Your task to perform on an android device: Go to eBay Image 0: 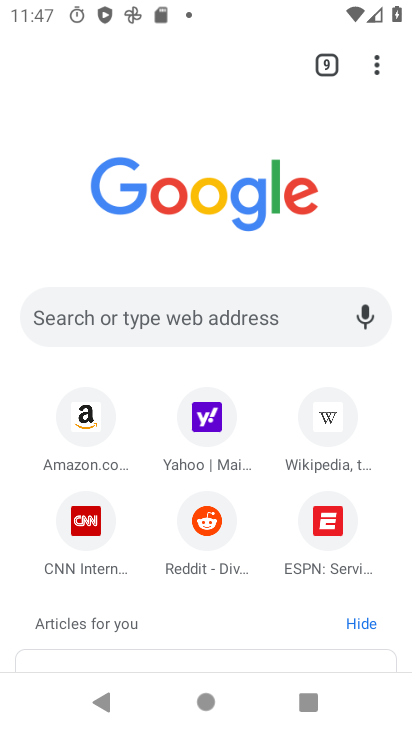
Step 0: click (328, 64)
Your task to perform on an android device: Go to eBay Image 1: 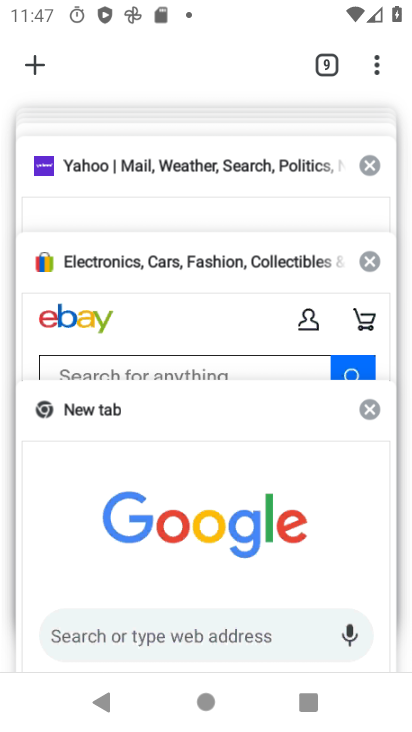
Step 1: click (150, 316)
Your task to perform on an android device: Go to eBay Image 2: 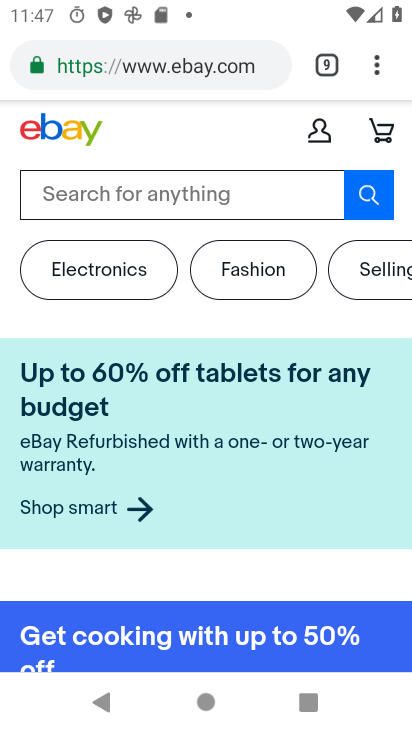
Step 2: task complete